Your task to perform on an android device: turn vacation reply on in the gmail app Image 0: 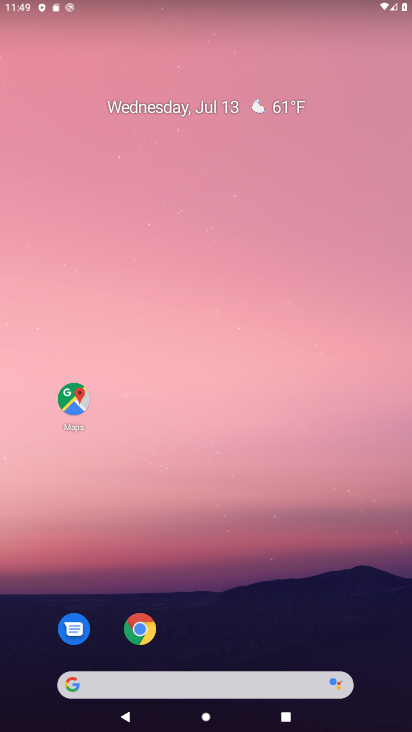
Step 0: drag from (248, 596) to (195, 201)
Your task to perform on an android device: turn vacation reply on in the gmail app Image 1: 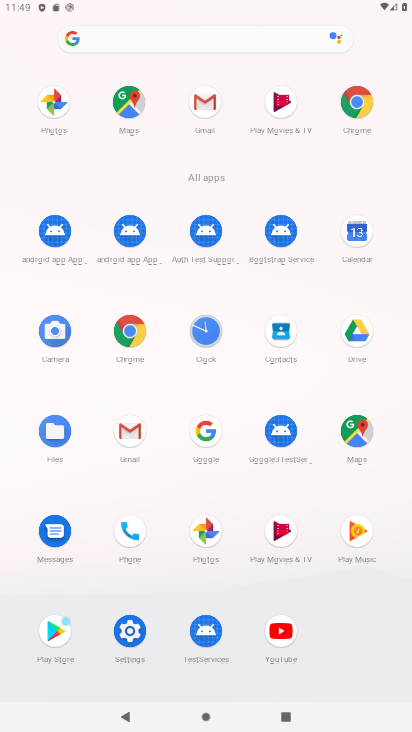
Step 1: click (126, 425)
Your task to perform on an android device: turn vacation reply on in the gmail app Image 2: 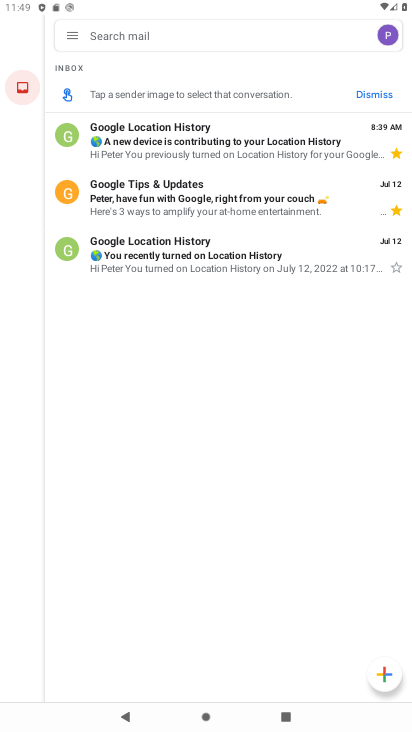
Step 2: click (67, 36)
Your task to perform on an android device: turn vacation reply on in the gmail app Image 3: 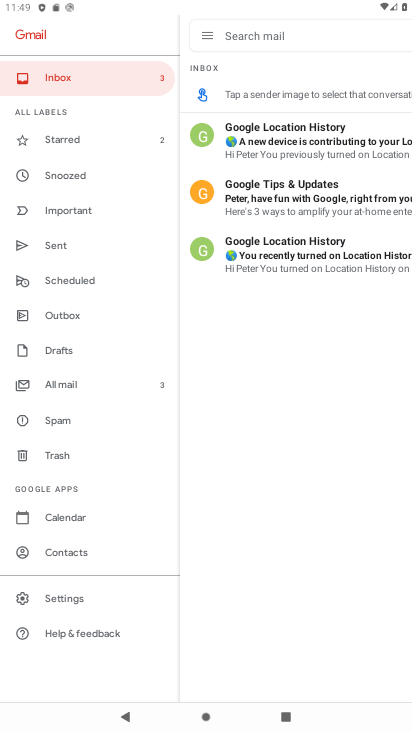
Step 3: click (63, 593)
Your task to perform on an android device: turn vacation reply on in the gmail app Image 4: 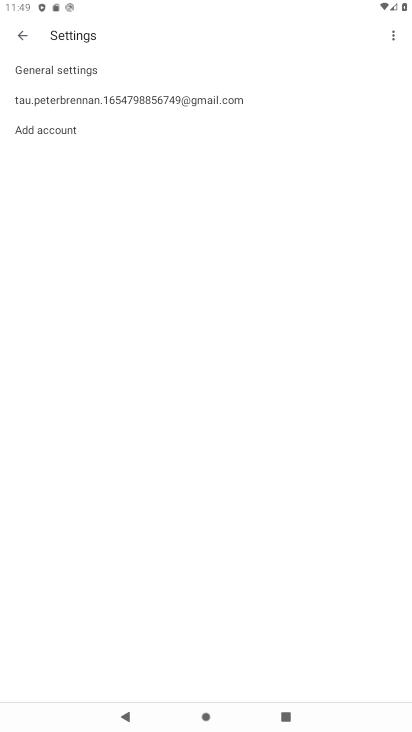
Step 4: click (66, 99)
Your task to perform on an android device: turn vacation reply on in the gmail app Image 5: 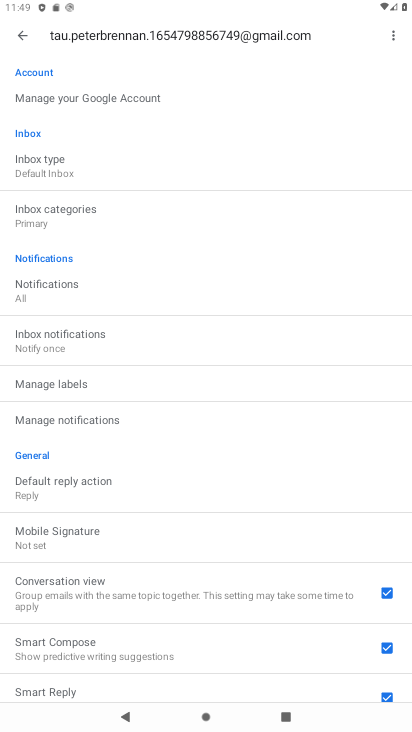
Step 5: drag from (233, 484) to (227, 240)
Your task to perform on an android device: turn vacation reply on in the gmail app Image 6: 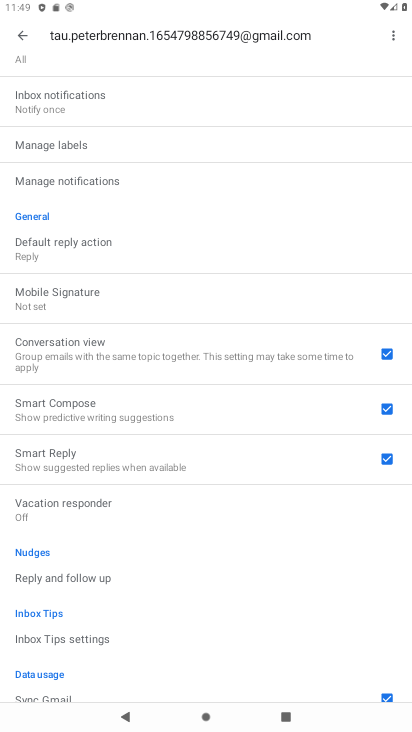
Step 6: click (71, 504)
Your task to perform on an android device: turn vacation reply on in the gmail app Image 7: 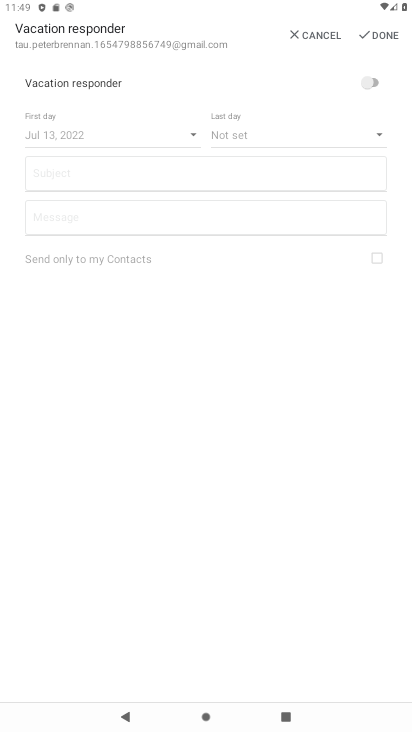
Step 7: click (361, 81)
Your task to perform on an android device: turn vacation reply on in the gmail app Image 8: 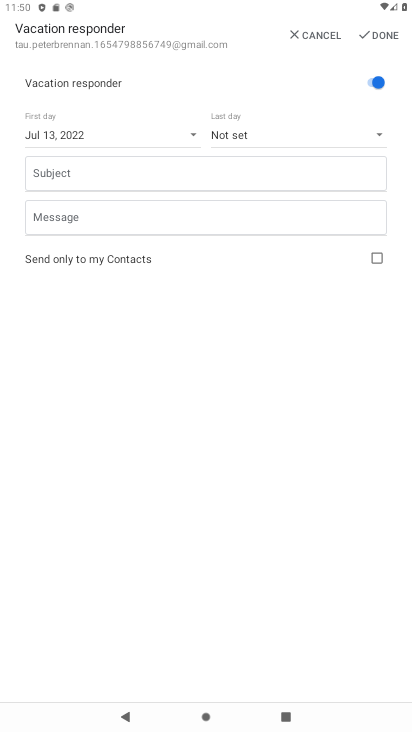
Step 8: task complete